Your task to perform on an android device: turn smart compose on in the gmail app Image 0: 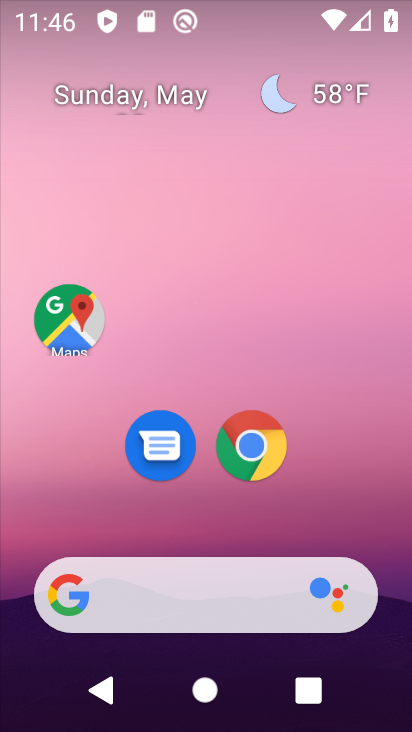
Step 0: drag from (205, 511) to (216, 2)
Your task to perform on an android device: turn smart compose on in the gmail app Image 1: 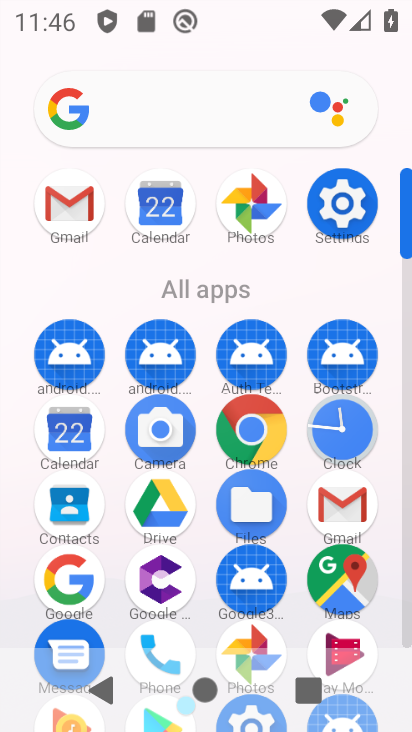
Step 1: click (341, 499)
Your task to perform on an android device: turn smart compose on in the gmail app Image 2: 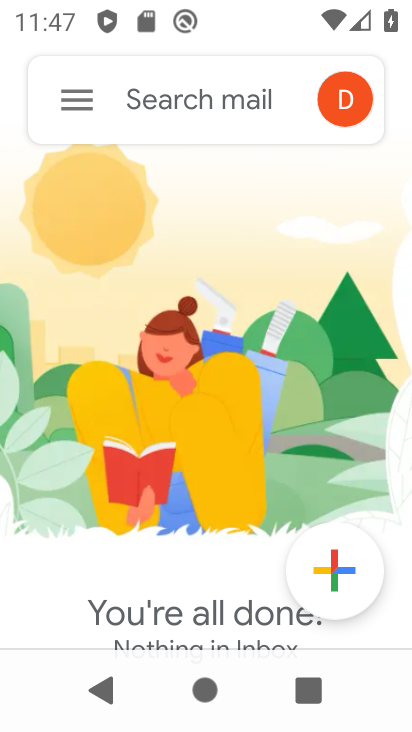
Step 2: click (64, 101)
Your task to perform on an android device: turn smart compose on in the gmail app Image 3: 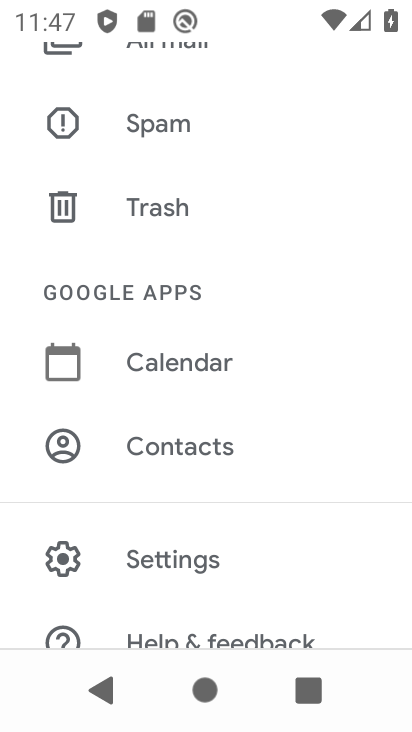
Step 3: click (134, 546)
Your task to perform on an android device: turn smart compose on in the gmail app Image 4: 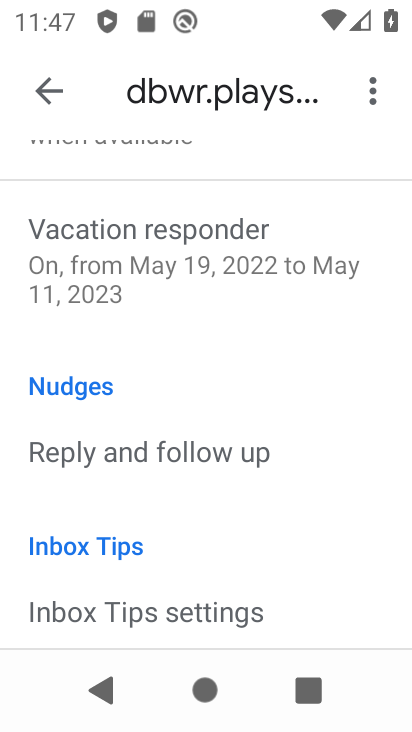
Step 4: task complete